Your task to perform on an android device: Search for "usb-c to usb-b" on walmart.com, select the first entry, and add it to the cart. Image 0: 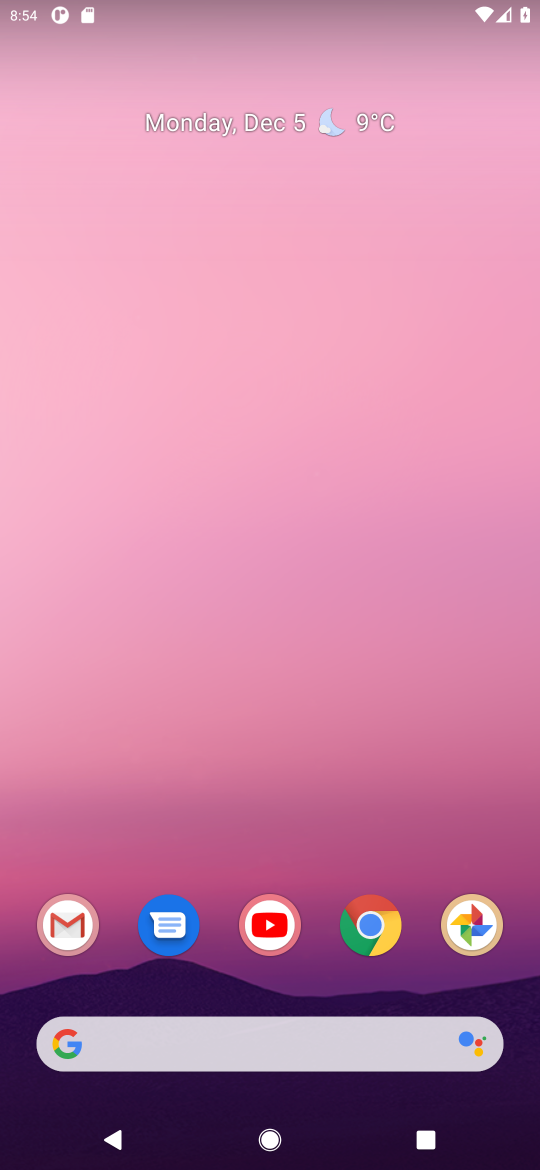
Step 0: click (380, 923)
Your task to perform on an android device: Search for "usb-c to usb-b" on walmart.com, select the first entry, and add it to the cart. Image 1: 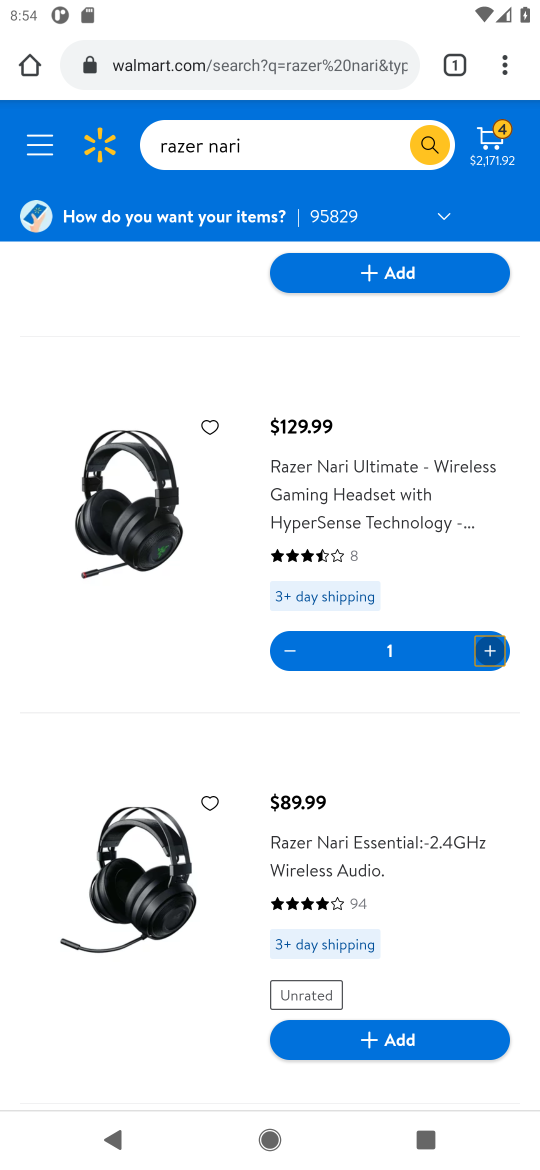
Step 1: click (248, 160)
Your task to perform on an android device: Search for "usb-c to usb-b" on walmart.com, select the first entry, and add it to the cart. Image 2: 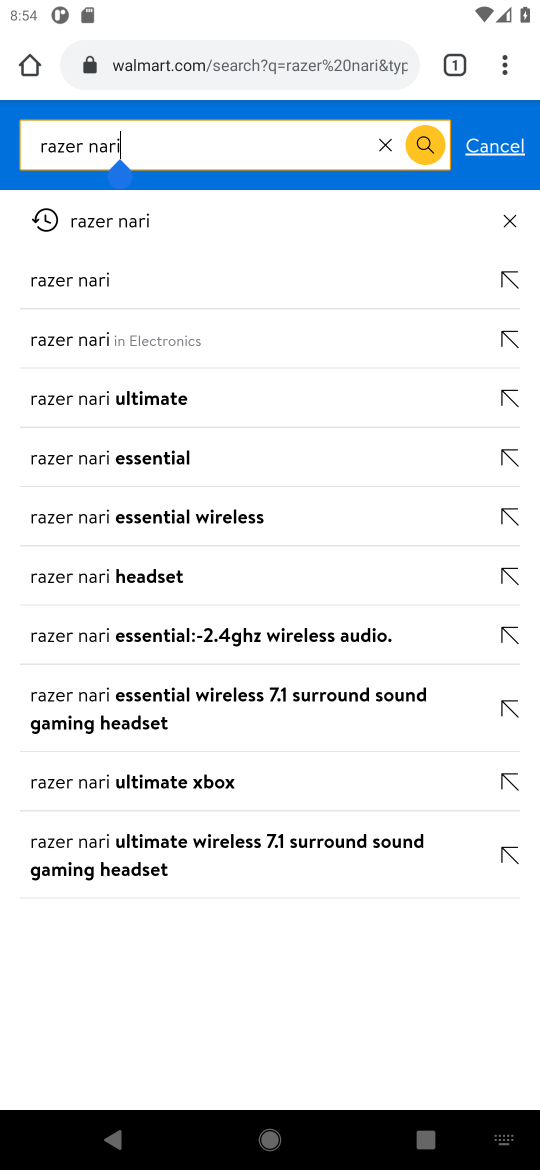
Step 2: click (385, 137)
Your task to perform on an android device: Search for "usb-c to usb-b" on walmart.com, select the first entry, and add it to the cart. Image 3: 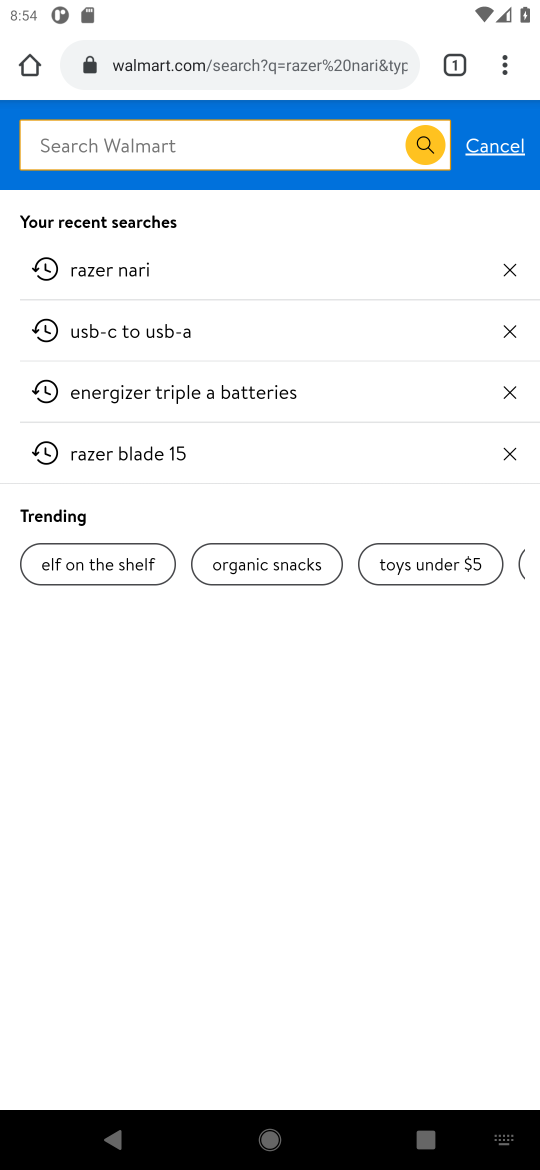
Step 3: click (152, 157)
Your task to perform on an android device: Search for "usb-c to usb-b" on walmart.com, select the first entry, and add it to the cart. Image 4: 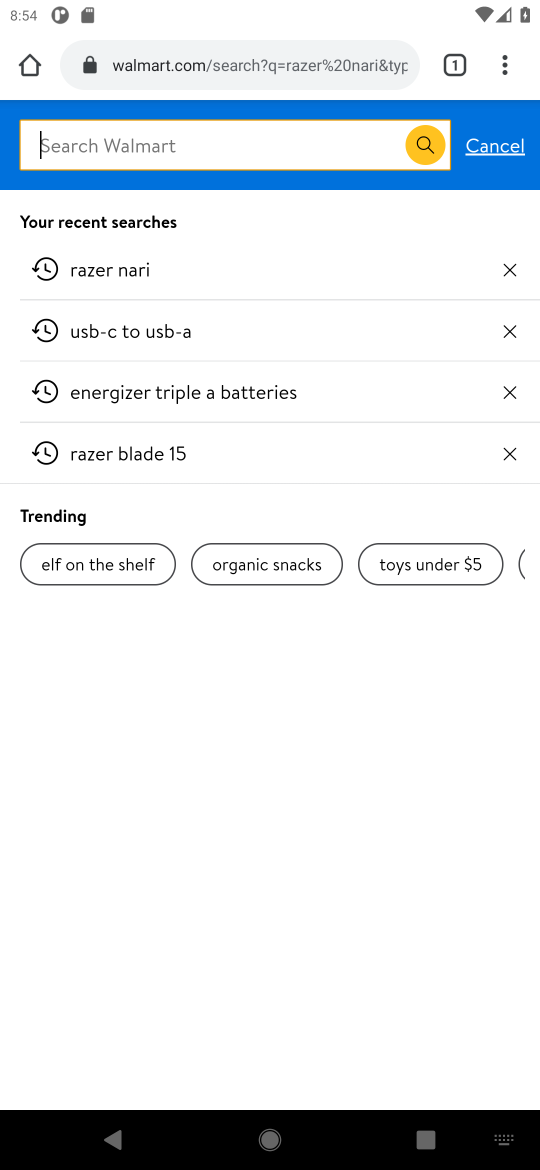
Step 4: type "usb-c to usb-b"
Your task to perform on an android device: Search for "usb-c to usb-b" on walmart.com, select the first entry, and add it to the cart. Image 5: 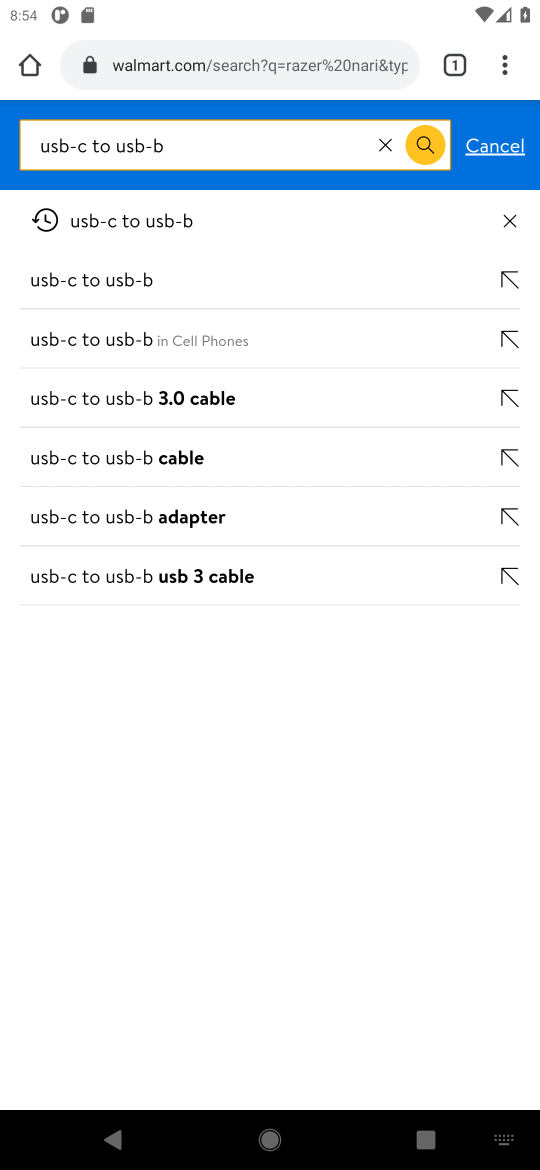
Step 5: click (133, 227)
Your task to perform on an android device: Search for "usb-c to usb-b" on walmart.com, select the first entry, and add it to the cart. Image 6: 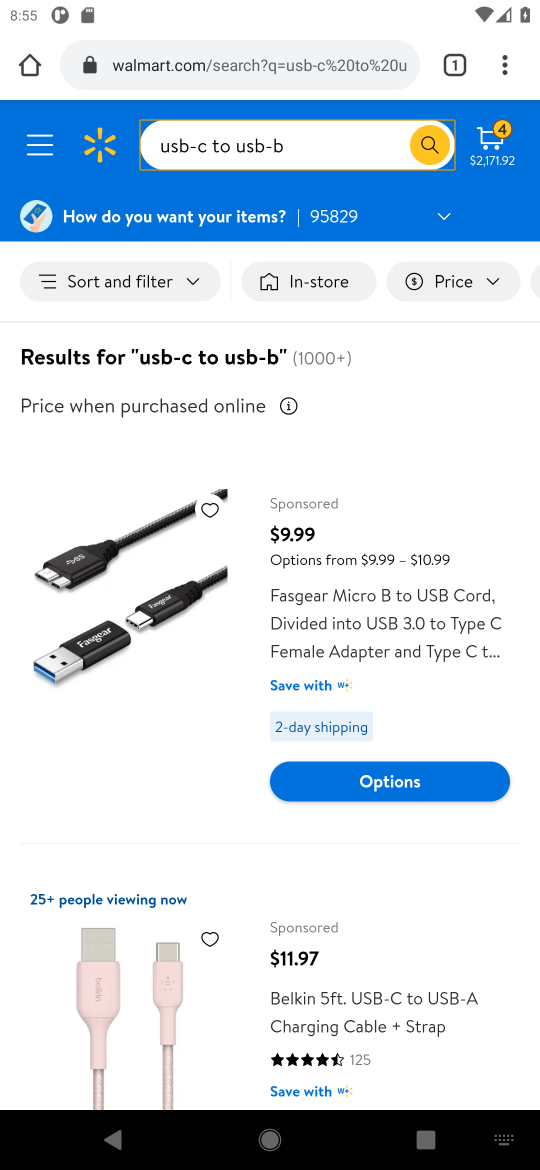
Step 6: click (356, 618)
Your task to perform on an android device: Search for "usb-c to usb-b" on walmart.com, select the first entry, and add it to the cart. Image 7: 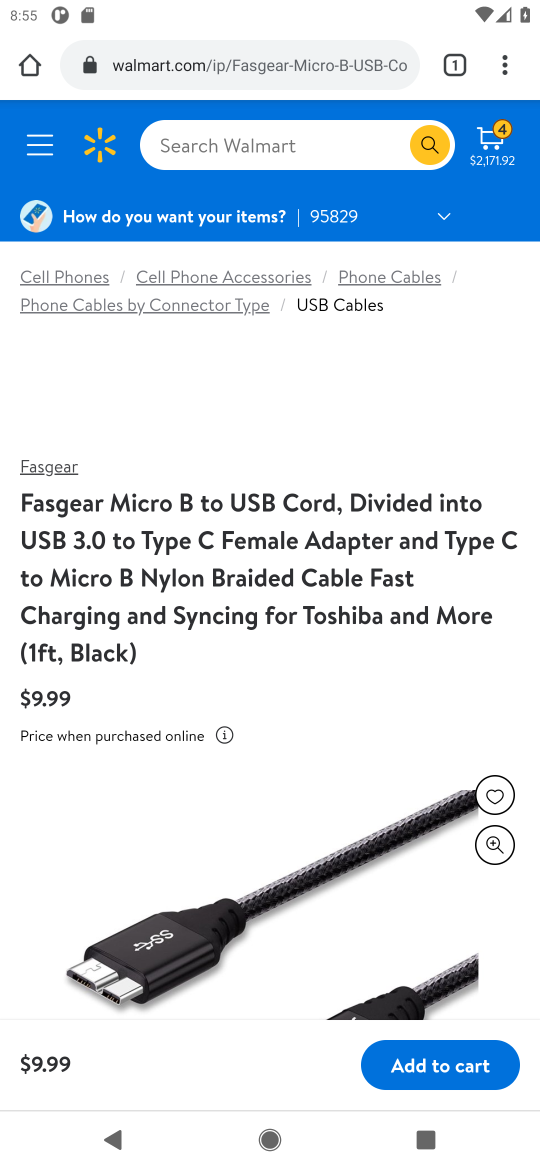
Step 7: task complete